Your task to perform on an android device: turn on priority inbox in the gmail app Image 0: 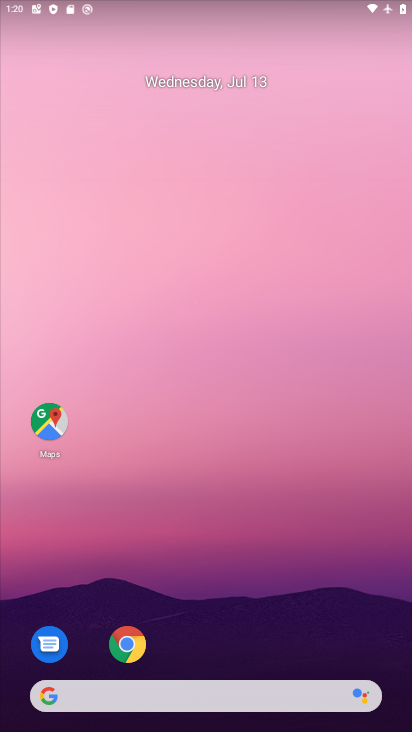
Step 0: drag from (335, 582) to (316, 97)
Your task to perform on an android device: turn on priority inbox in the gmail app Image 1: 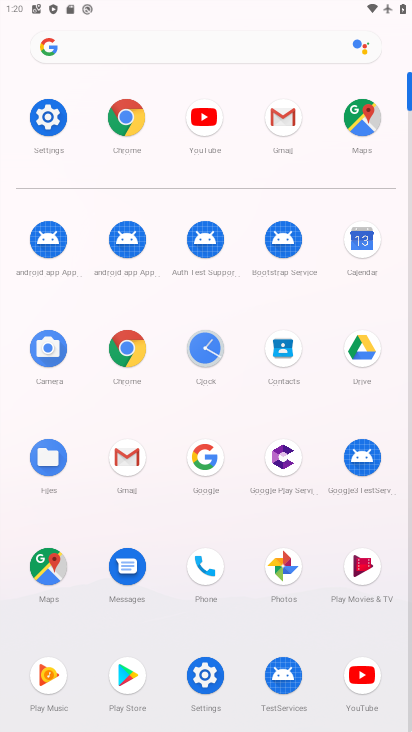
Step 1: click (291, 116)
Your task to perform on an android device: turn on priority inbox in the gmail app Image 2: 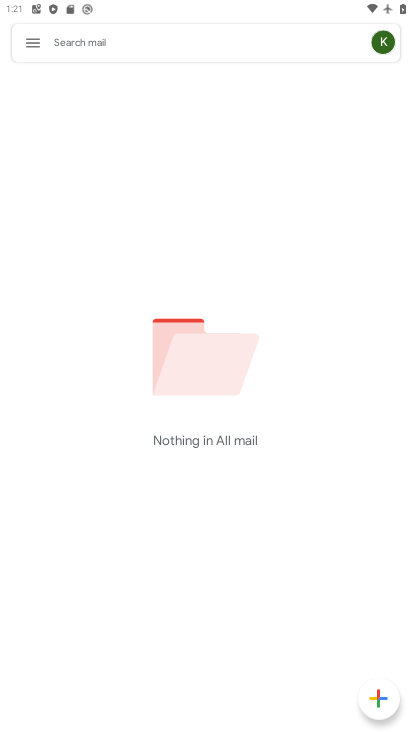
Step 2: click (34, 40)
Your task to perform on an android device: turn on priority inbox in the gmail app Image 3: 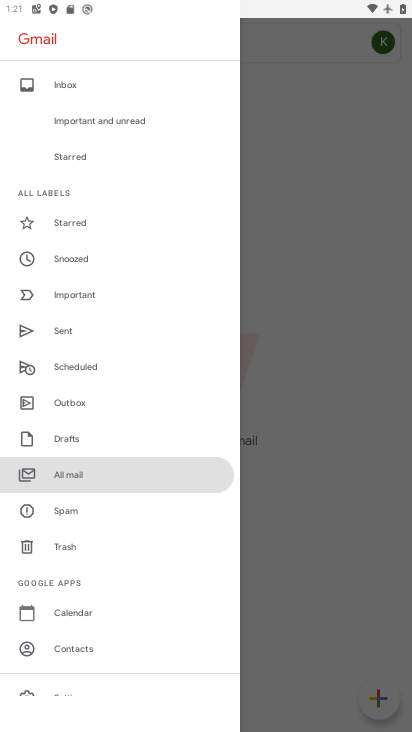
Step 3: drag from (71, 643) to (105, 257)
Your task to perform on an android device: turn on priority inbox in the gmail app Image 4: 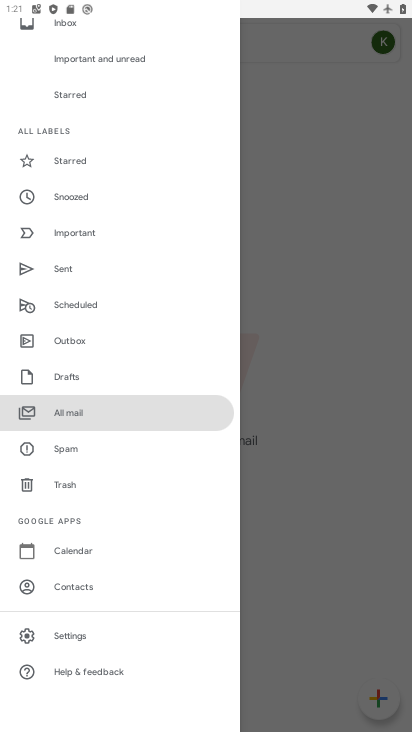
Step 4: click (70, 634)
Your task to perform on an android device: turn on priority inbox in the gmail app Image 5: 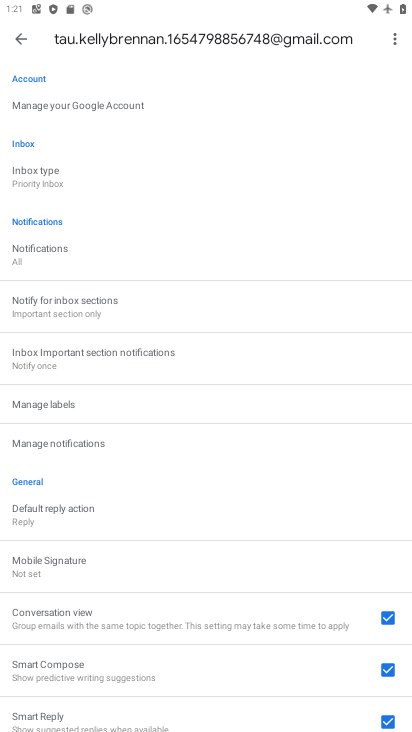
Step 5: drag from (168, 136) to (156, 499)
Your task to perform on an android device: turn on priority inbox in the gmail app Image 6: 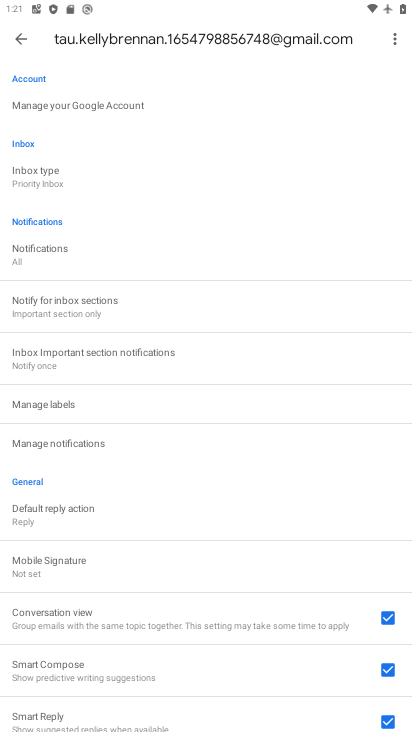
Step 6: click (52, 185)
Your task to perform on an android device: turn on priority inbox in the gmail app Image 7: 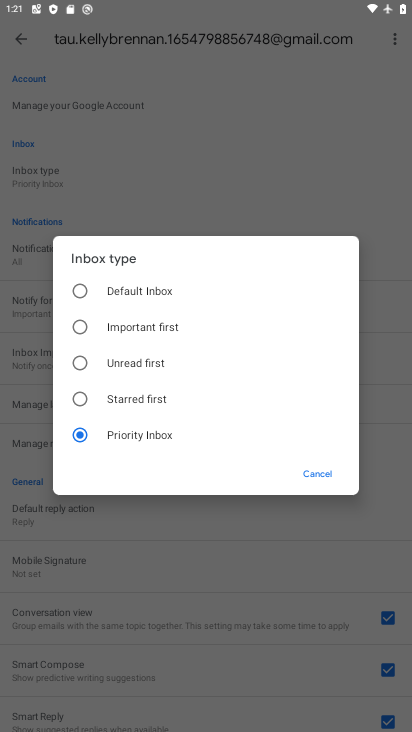
Step 7: task complete